Your task to perform on an android device: Open Chrome and go to settings Image 0: 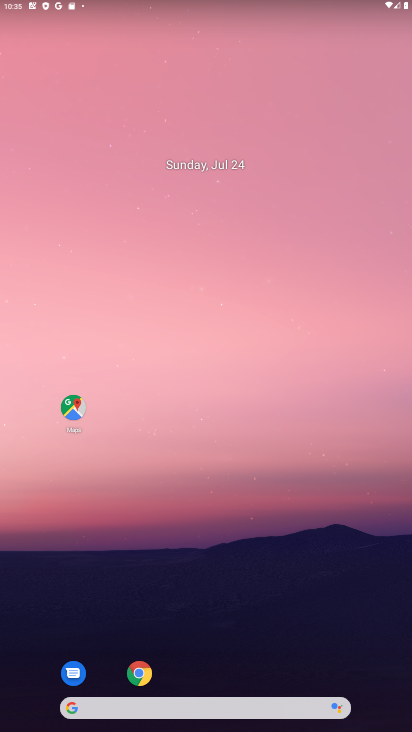
Step 0: click (131, 675)
Your task to perform on an android device: Open Chrome and go to settings Image 1: 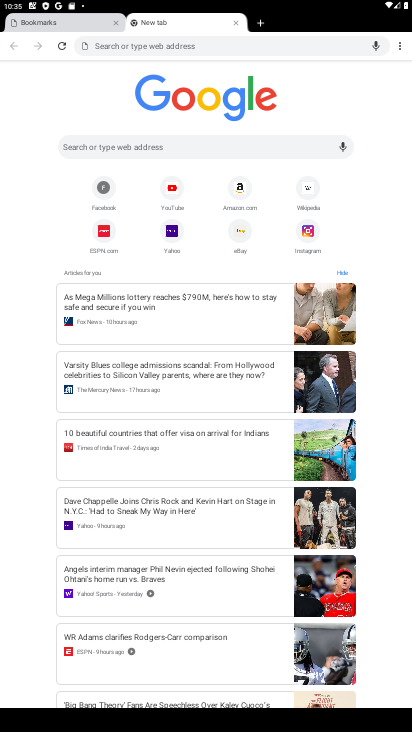
Step 1: click (396, 45)
Your task to perform on an android device: Open Chrome and go to settings Image 2: 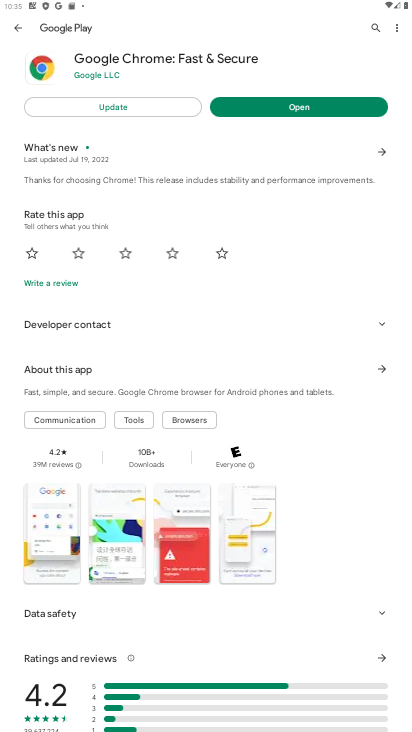
Step 2: click (274, 102)
Your task to perform on an android device: Open Chrome and go to settings Image 3: 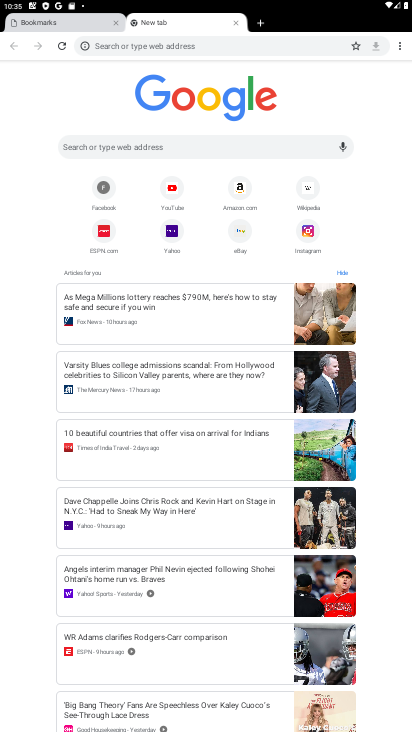
Step 3: click (400, 45)
Your task to perform on an android device: Open Chrome and go to settings Image 4: 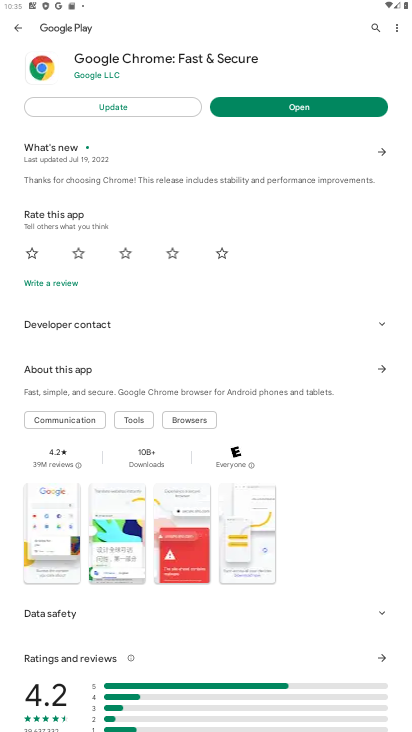
Step 4: task complete